Your task to perform on an android device: Go to privacy settings Image 0: 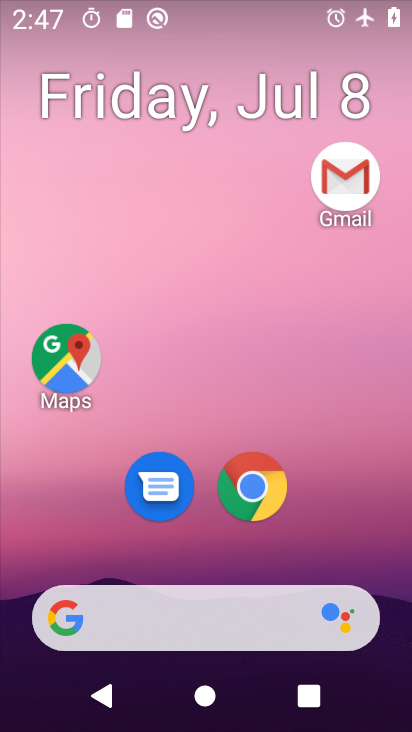
Step 0: drag from (368, 531) to (349, 163)
Your task to perform on an android device: Go to privacy settings Image 1: 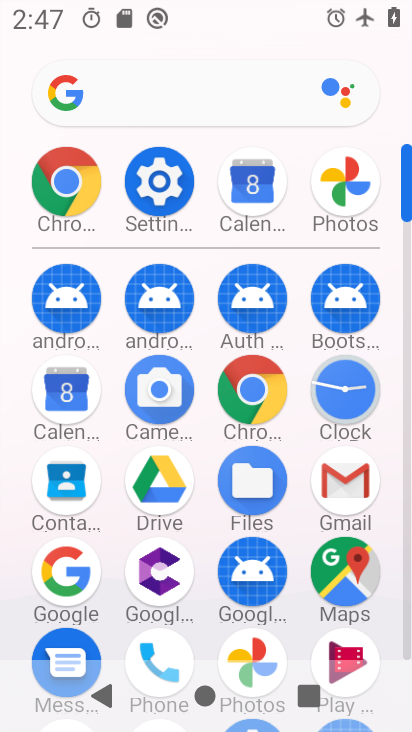
Step 1: click (160, 188)
Your task to perform on an android device: Go to privacy settings Image 2: 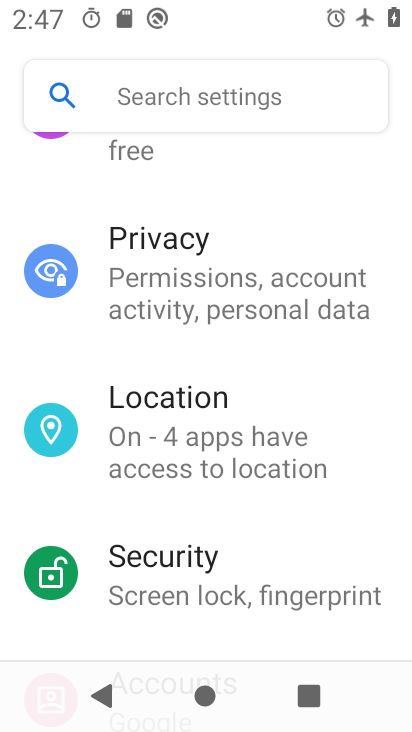
Step 2: drag from (276, 204) to (312, 359)
Your task to perform on an android device: Go to privacy settings Image 3: 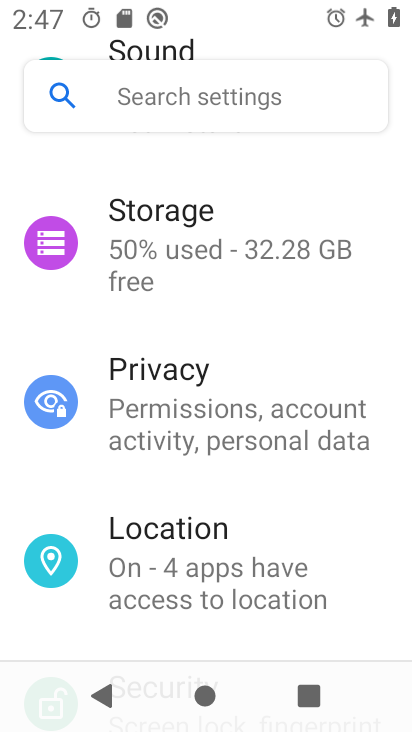
Step 3: drag from (377, 199) to (386, 351)
Your task to perform on an android device: Go to privacy settings Image 4: 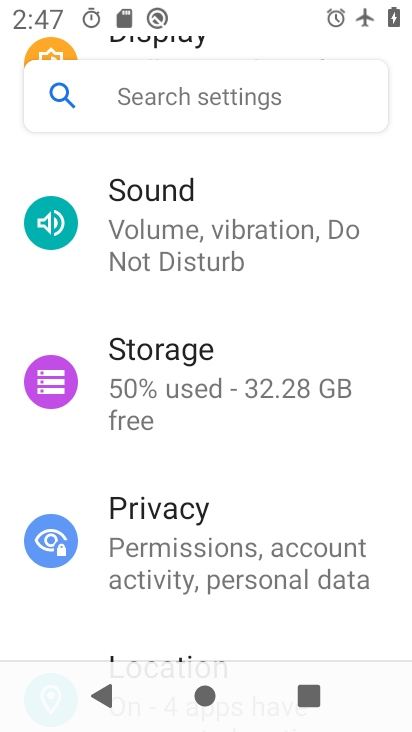
Step 4: drag from (370, 234) to (366, 334)
Your task to perform on an android device: Go to privacy settings Image 5: 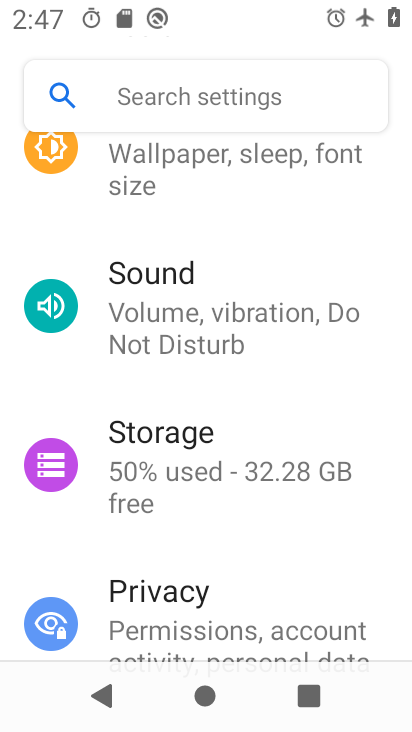
Step 5: drag from (369, 212) to (372, 334)
Your task to perform on an android device: Go to privacy settings Image 6: 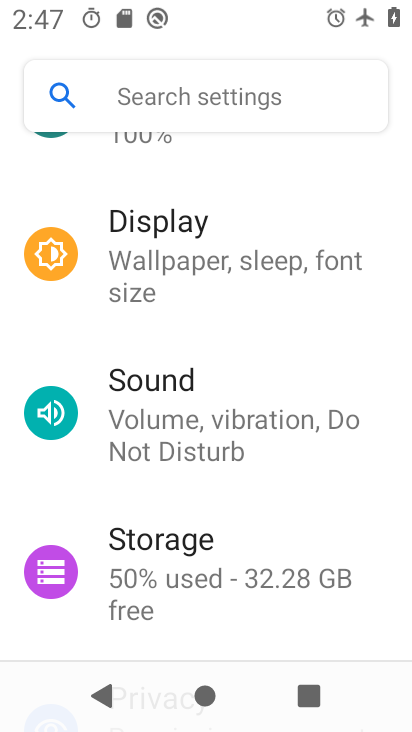
Step 6: drag from (374, 178) to (375, 321)
Your task to perform on an android device: Go to privacy settings Image 7: 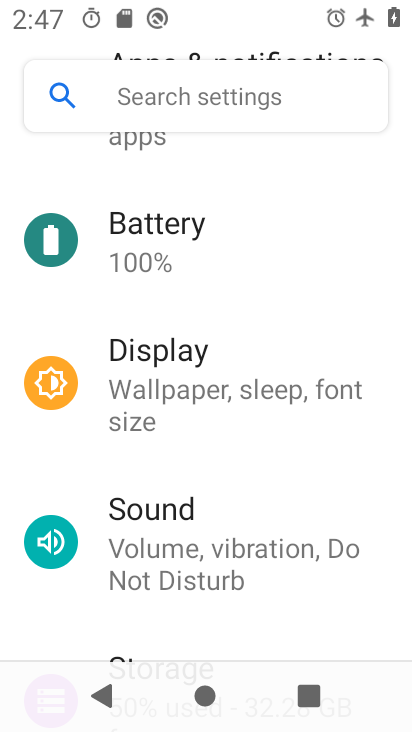
Step 7: drag from (362, 182) to (357, 307)
Your task to perform on an android device: Go to privacy settings Image 8: 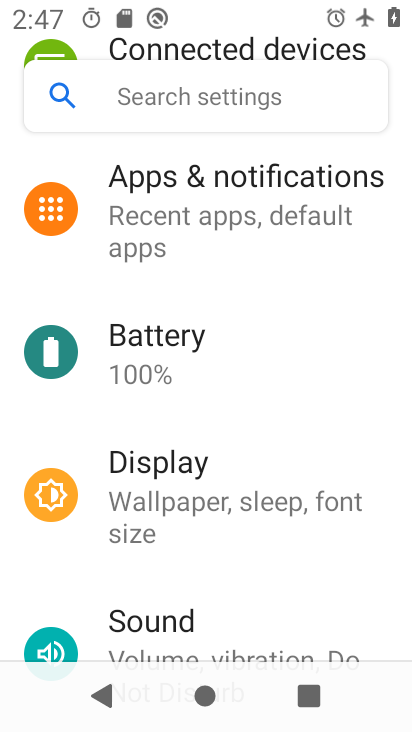
Step 8: drag from (384, 157) to (362, 347)
Your task to perform on an android device: Go to privacy settings Image 9: 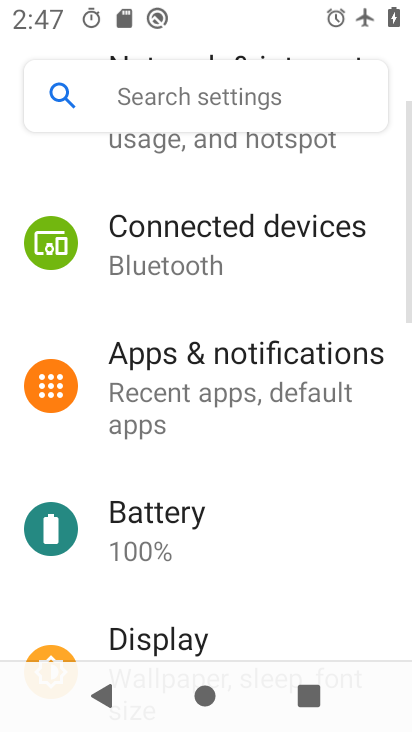
Step 9: drag from (367, 492) to (370, 353)
Your task to perform on an android device: Go to privacy settings Image 10: 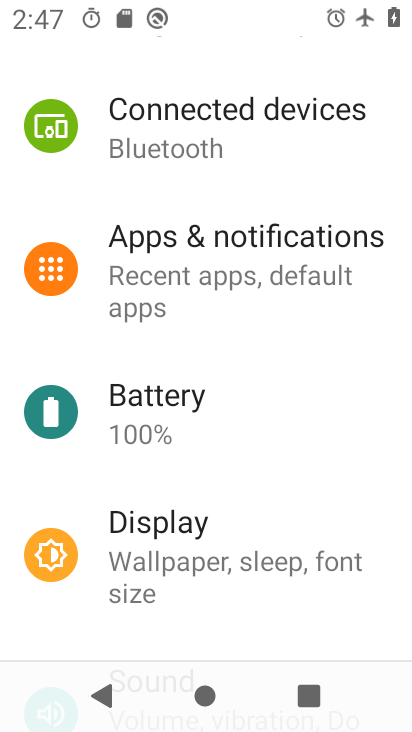
Step 10: drag from (351, 435) to (338, 267)
Your task to perform on an android device: Go to privacy settings Image 11: 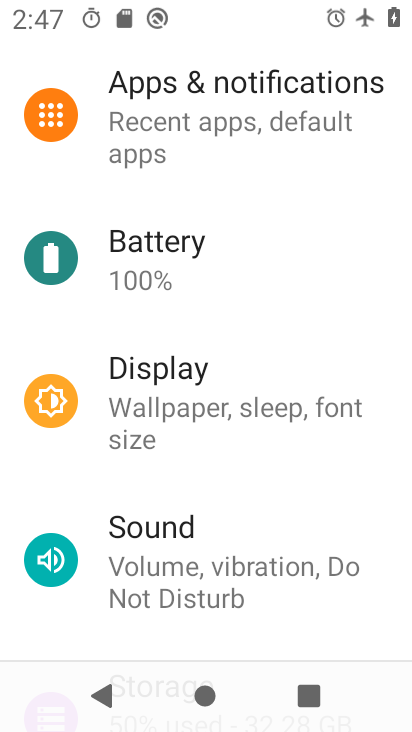
Step 11: drag from (338, 455) to (335, 232)
Your task to perform on an android device: Go to privacy settings Image 12: 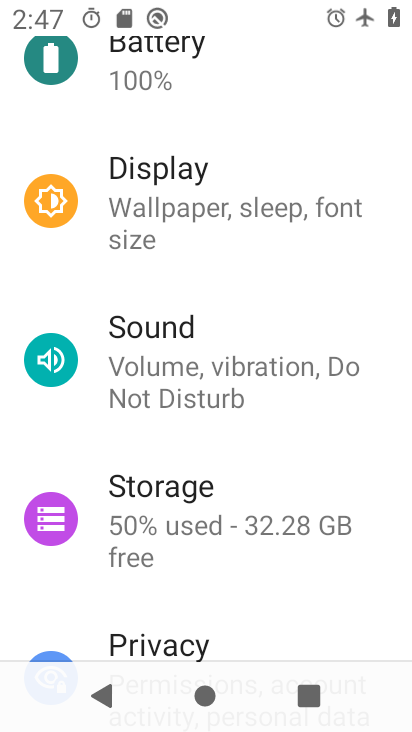
Step 12: drag from (324, 579) to (356, 245)
Your task to perform on an android device: Go to privacy settings Image 13: 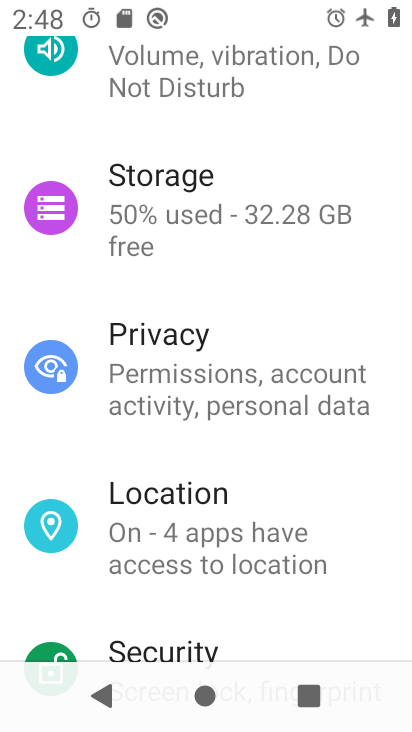
Step 13: drag from (338, 551) to (341, 304)
Your task to perform on an android device: Go to privacy settings Image 14: 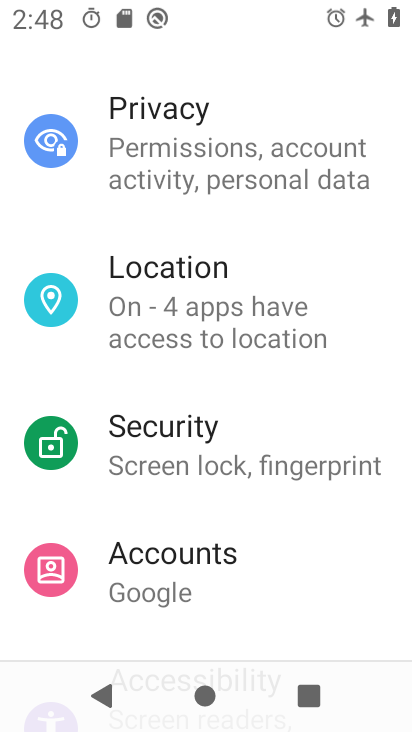
Step 14: click (274, 169)
Your task to perform on an android device: Go to privacy settings Image 15: 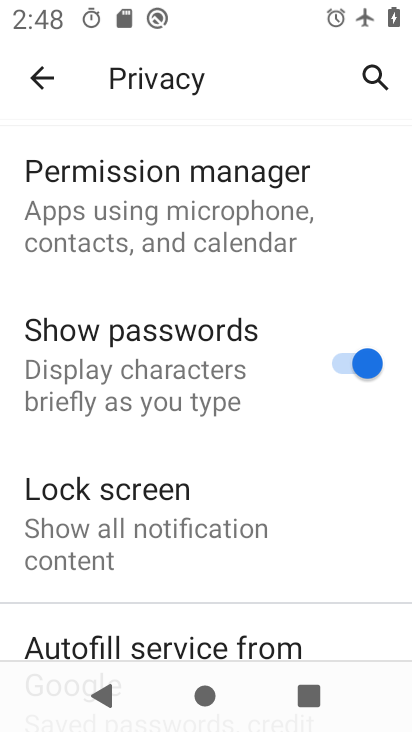
Step 15: task complete